Your task to perform on an android device: Go to CNN.com Image 0: 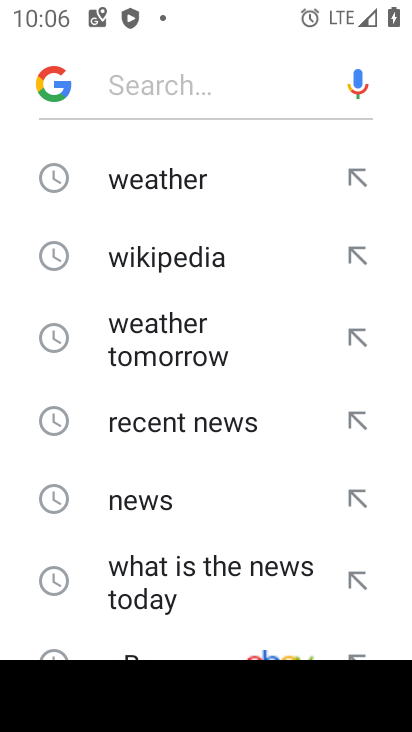
Step 0: press home button
Your task to perform on an android device: Go to CNN.com Image 1: 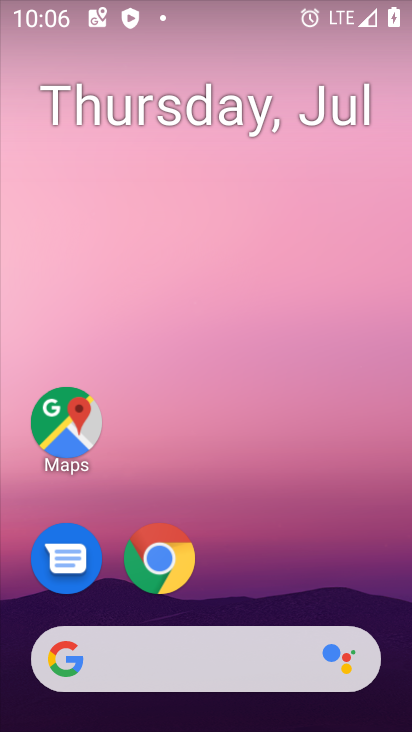
Step 1: drag from (323, 548) to (343, 85)
Your task to perform on an android device: Go to CNN.com Image 2: 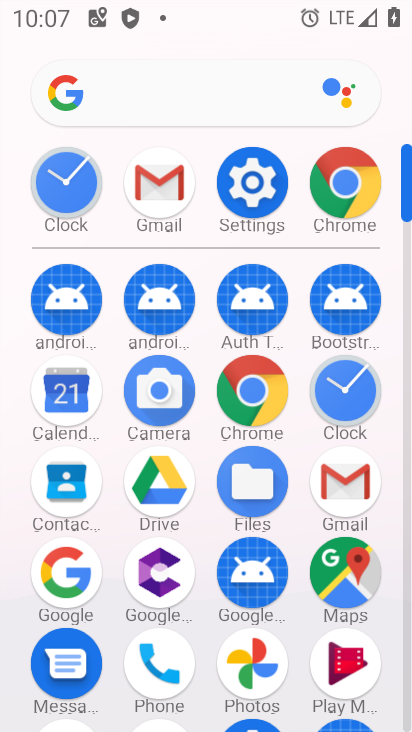
Step 2: click (258, 388)
Your task to perform on an android device: Go to CNN.com Image 3: 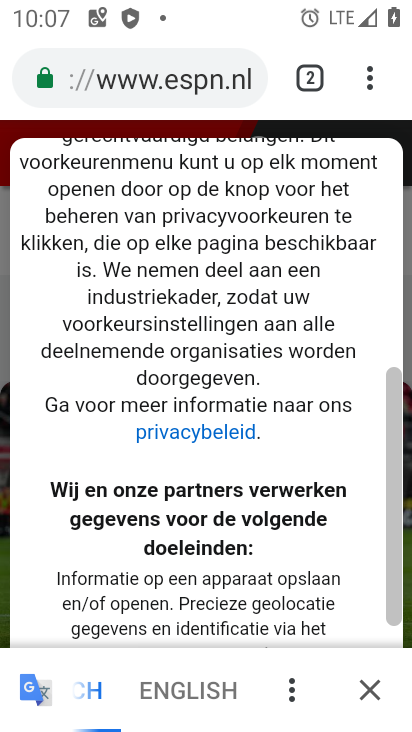
Step 3: click (220, 85)
Your task to perform on an android device: Go to CNN.com Image 4: 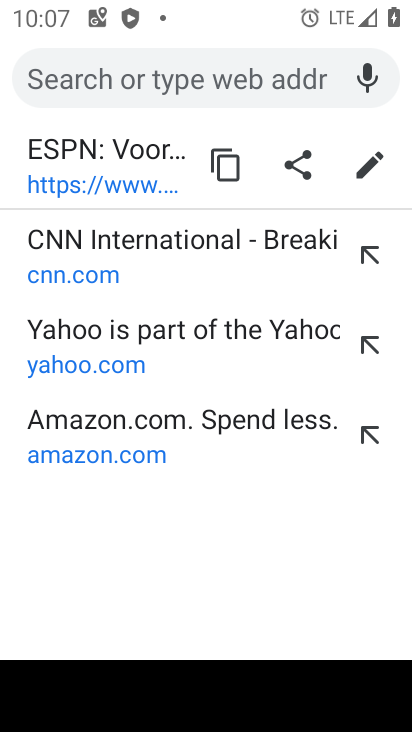
Step 4: type "cnn.com"
Your task to perform on an android device: Go to CNN.com Image 5: 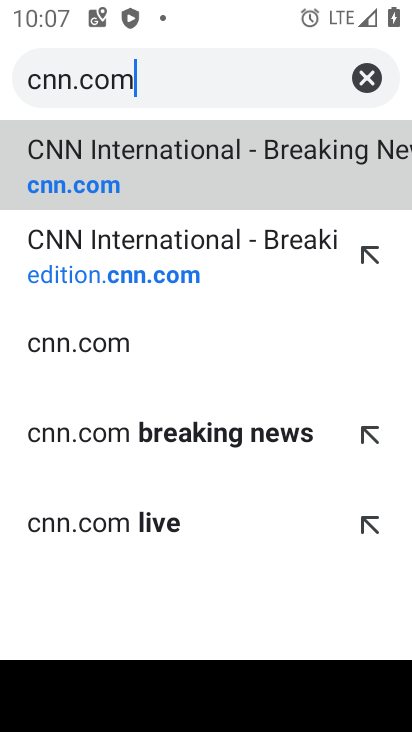
Step 5: click (286, 177)
Your task to perform on an android device: Go to CNN.com Image 6: 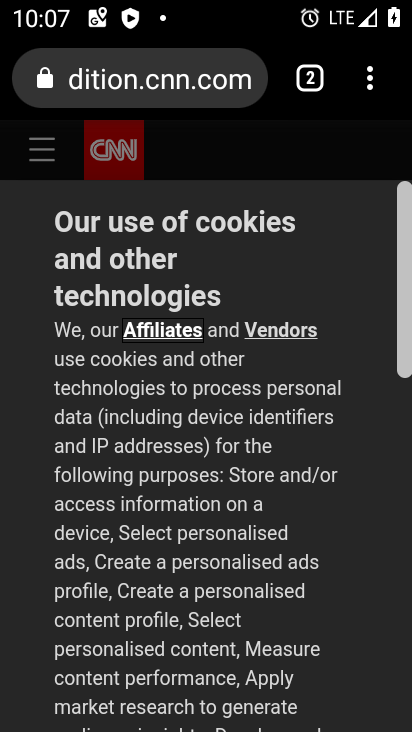
Step 6: task complete